Your task to perform on an android device: star an email in the gmail app Image 0: 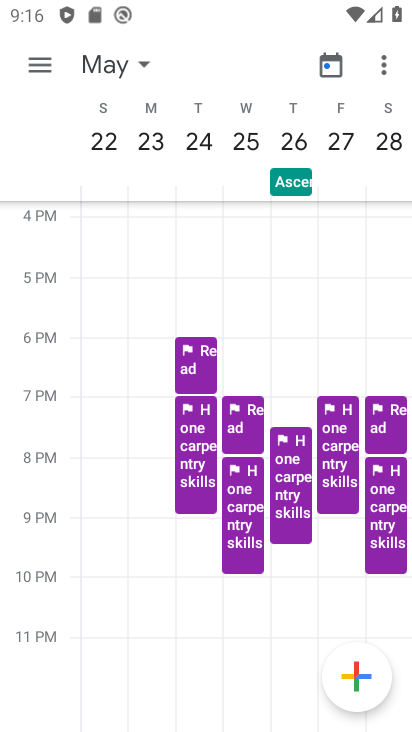
Step 0: press home button
Your task to perform on an android device: star an email in the gmail app Image 1: 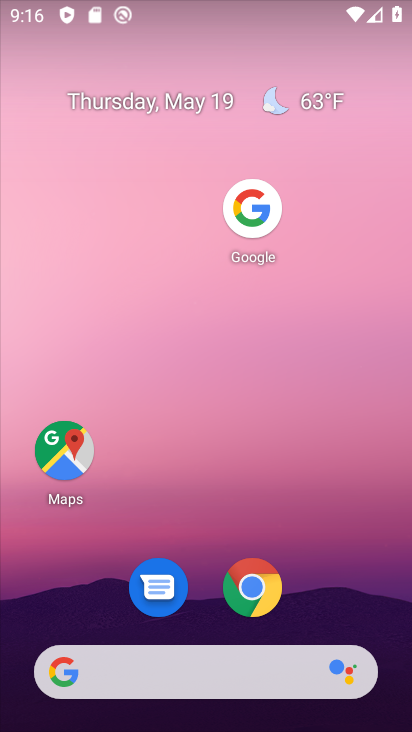
Step 1: drag from (211, 627) to (189, 92)
Your task to perform on an android device: star an email in the gmail app Image 2: 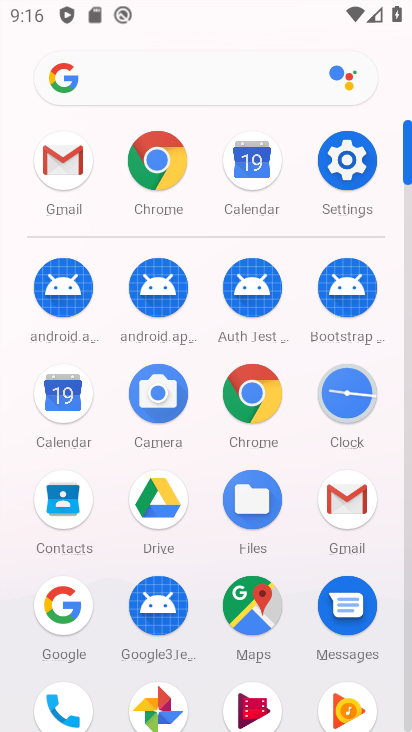
Step 2: click (350, 502)
Your task to perform on an android device: star an email in the gmail app Image 3: 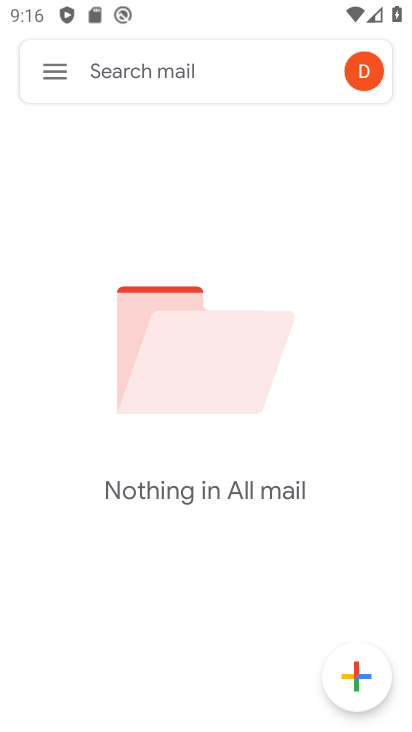
Step 3: task complete